Your task to perform on an android device: all mails in gmail Image 0: 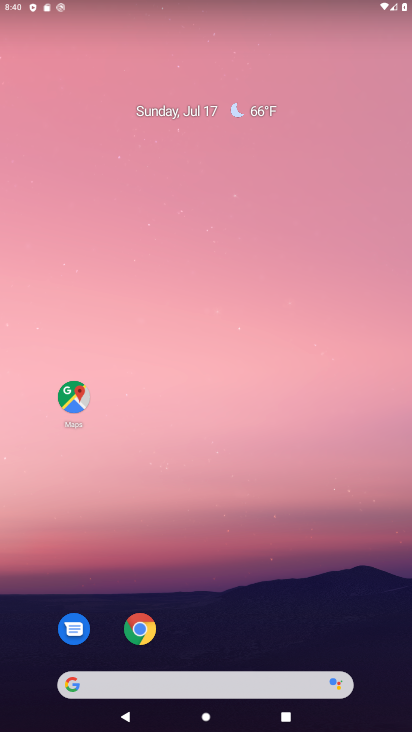
Step 0: drag from (216, 649) to (212, 0)
Your task to perform on an android device: all mails in gmail Image 1: 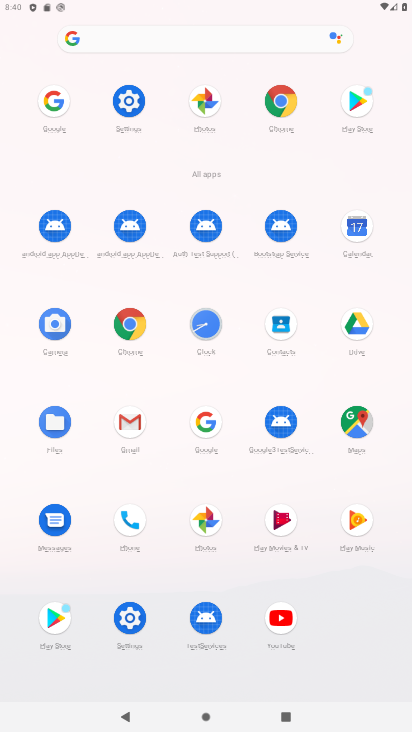
Step 1: click (124, 415)
Your task to perform on an android device: all mails in gmail Image 2: 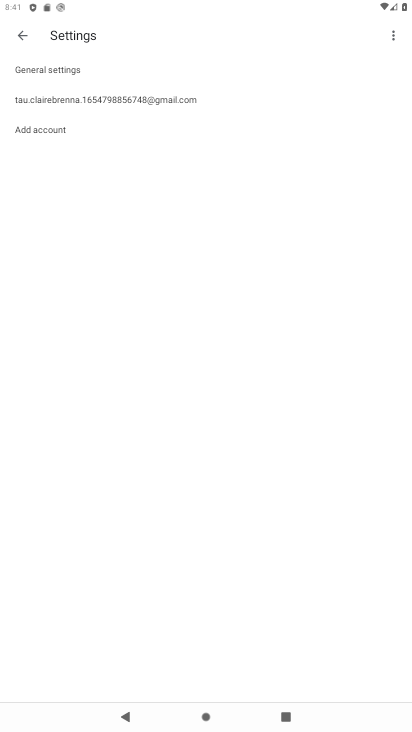
Step 2: click (20, 35)
Your task to perform on an android device: all mails in gmail Image 3: 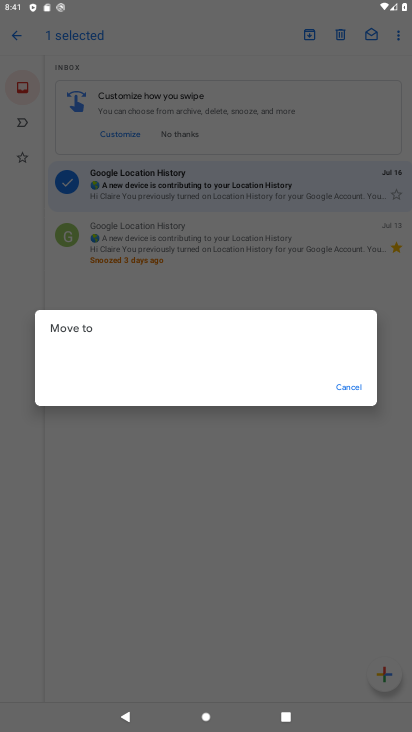
Step 3: click (343, 383)
Your task to perform on an android device: all mails in gmail Image 4: 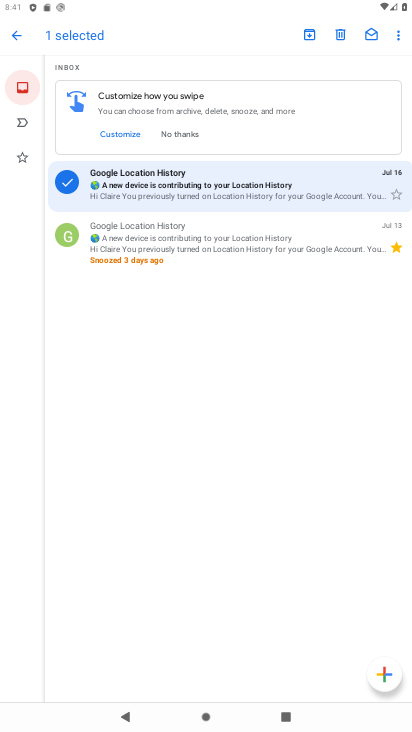
Step 4: click (13, 33)
Your task to perform on an android device: all mails in gmail Image 5: 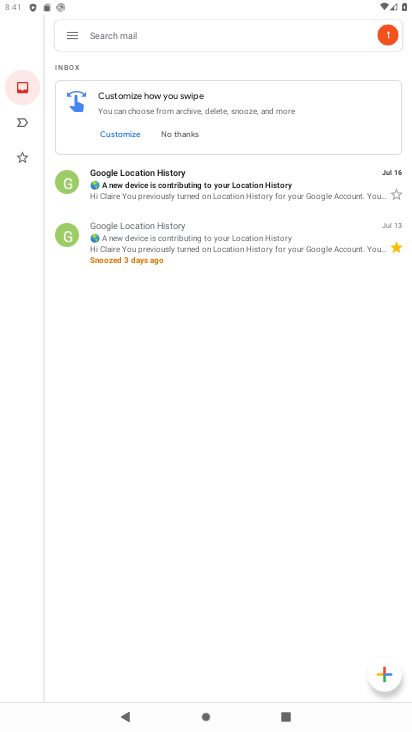
Step 5: click (72, 37)
Your task to perform on an android device: all mails in gmail Image 6: 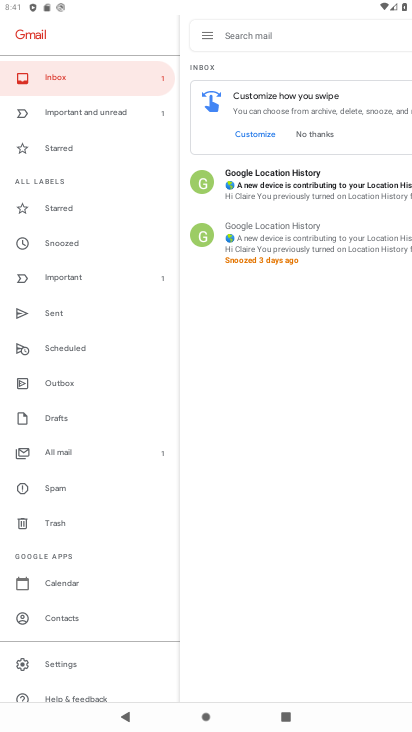
Step 6: click (58, 449)
Your task to perform on an android device: all mails in gmail Image 7: 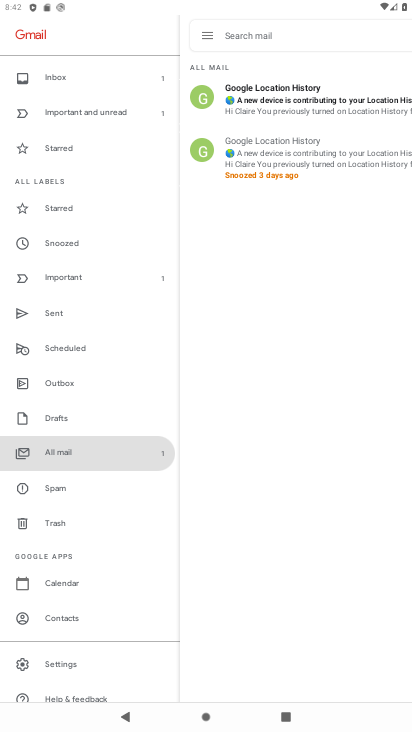
Step 7: task complete